Your task to perform on an android device: What is the recent news? Image 0: 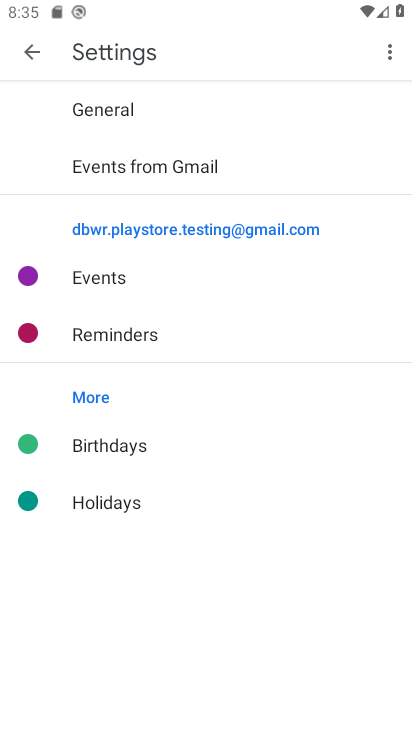
Step 0: press home button
Your task to perform on an android device: What is the recent news? Image 1: 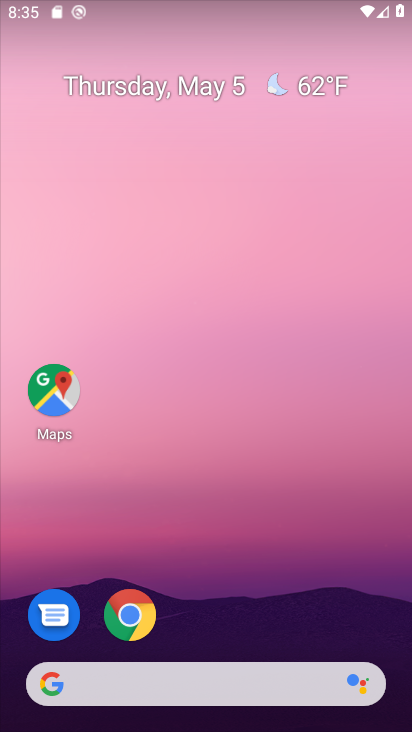
Step 1: drag from (187, 664) to (160, 271)
Your task to perform on an android device: What is the recent news? Image 2: 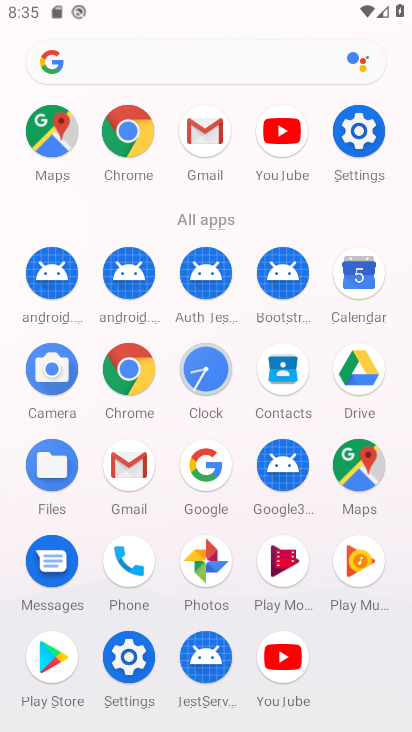
Step 2: click (214, 475)
Your task to perform on an android device: What is the recent news? Image 3: 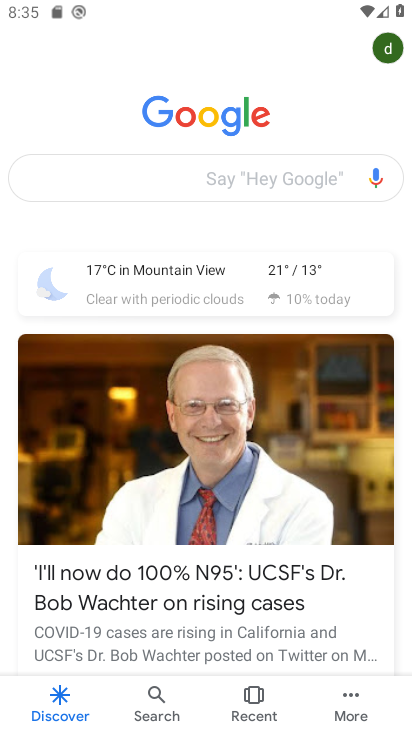
Step 3: drag from (119, 189) to (11, 189)
Your task to perform on an android device: What is the recent news? Image 4: 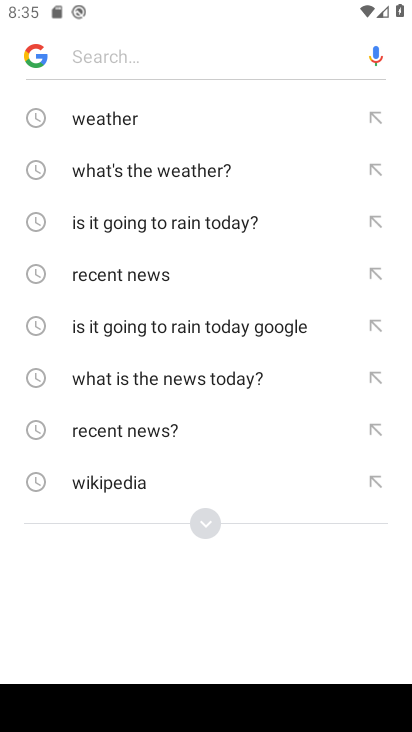
Step 4: click (158, 272)
Your task to perform on an android device: What is the recent news? Image 5: 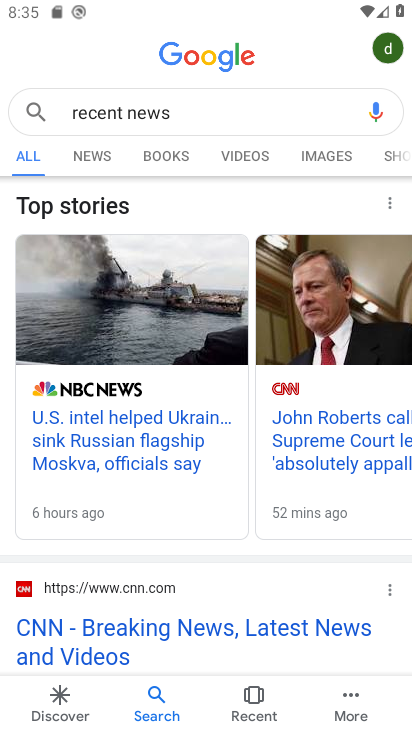
Step 5: click (127, 637)
Your task to perform on an android device: What is the recent news? Image 6: 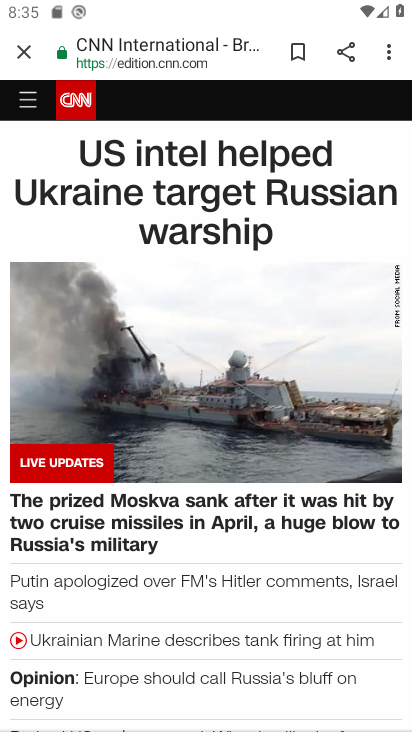
Step 6: task complete